Your task to perform on an android device: stop showing notifications on the lock screen Image 0: 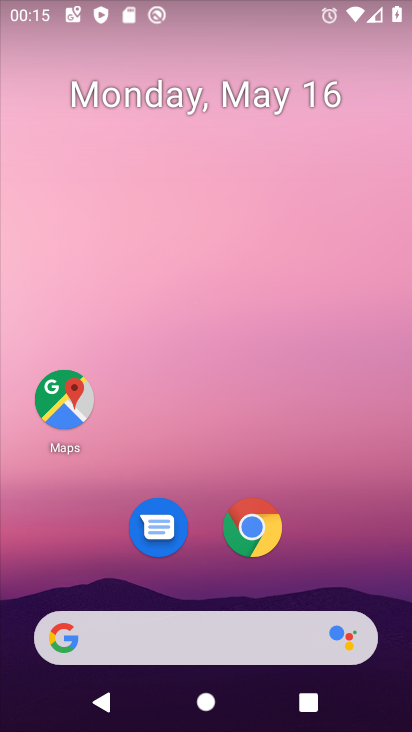
Step 0: drag from (370, 556) to (289, 118)
Your task to perform on an android device: stop showing notifications on the lock screen Image 1: 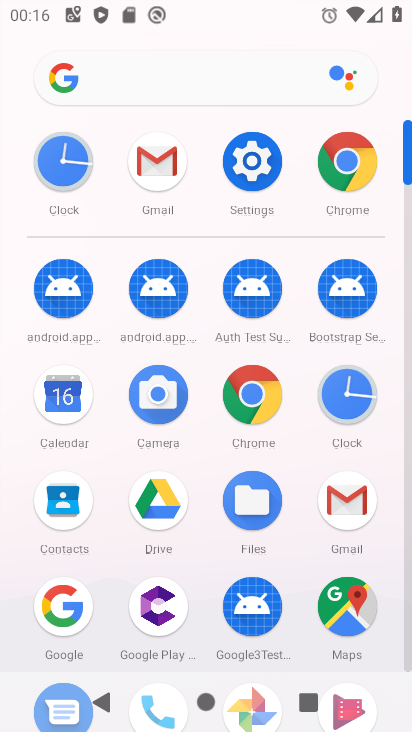
Step 1: click (237, 169)
Your task to perform on an android device: stop showing notifications on the lock screen Image 2: 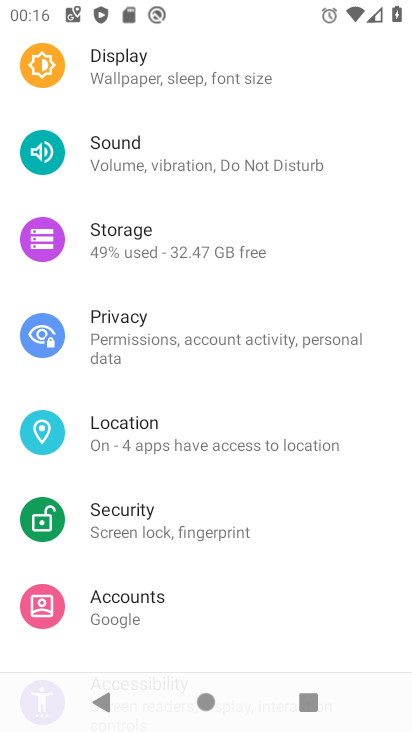
Step 2: drag from (201, 379) to (197, 553)
Your task to perform on an android device: stop showing notifications on the lock screen Image 3: 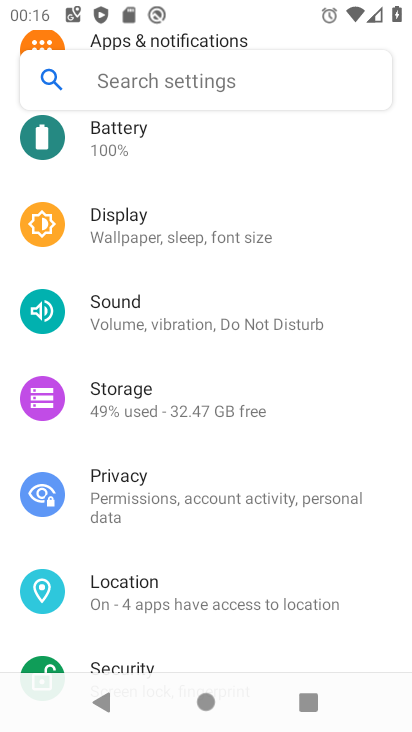
Step 3: drag from (202, 183) to (212, 375)
Your task to perform on an android device: stop showing notifications on the lock screen Image 4: 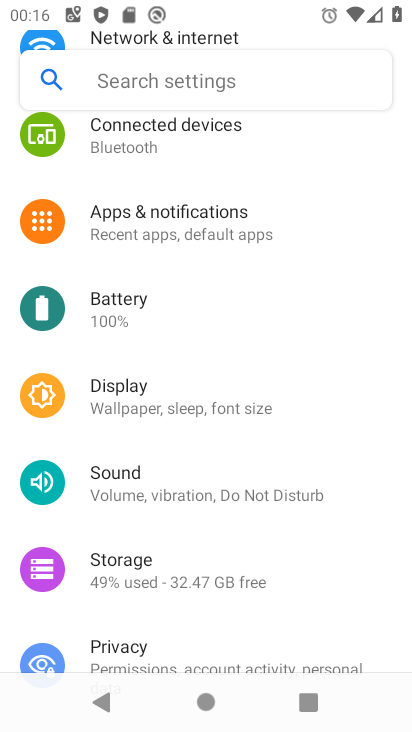
Step 4: click (200, 256)
Your task to perform on an android device: stop showing notifications on the lock screen Image 5: 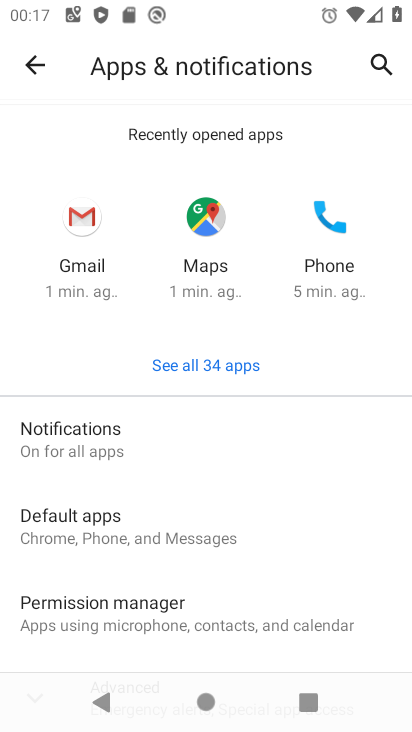
Step 5: drag from (199, 586) to (209, 411)
Your task to perform on an android device: stop showing notifications on the lock screen Image 6: 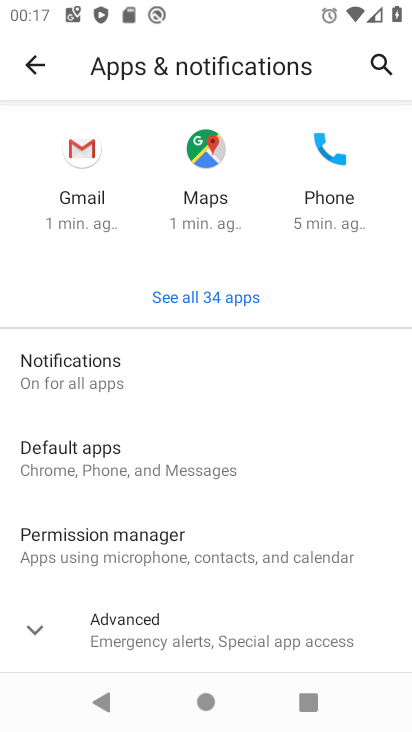
Step 6: click (215, 365)
Your task to perform on an android device: stop showing notifications on the lock screen Image 7: 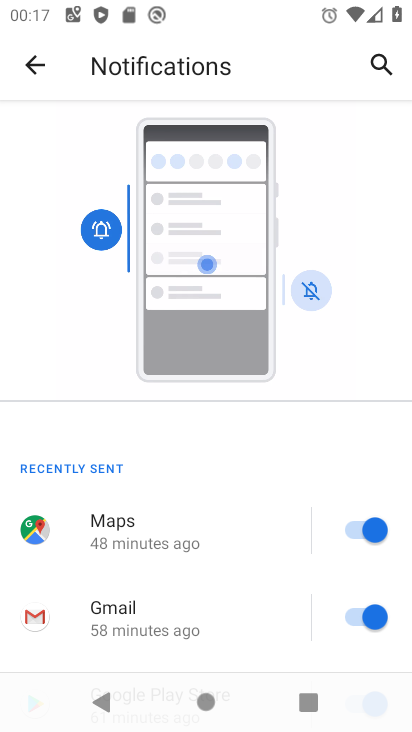
Step 7: drag from (216, 640) to (242, 363)
Your task to perform on an android device: stop showing notifications on the lock screen Image 8: 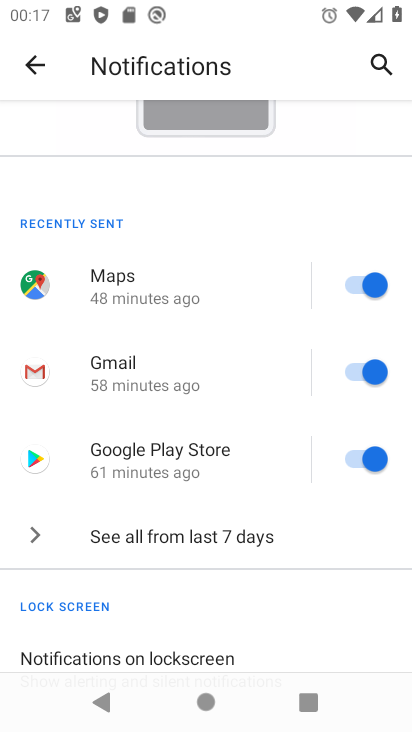
Step 8: drag from (210, 601) to (242, 280)
Your task to perform on an android device: stop showing notifications on the lock screen Image 9: 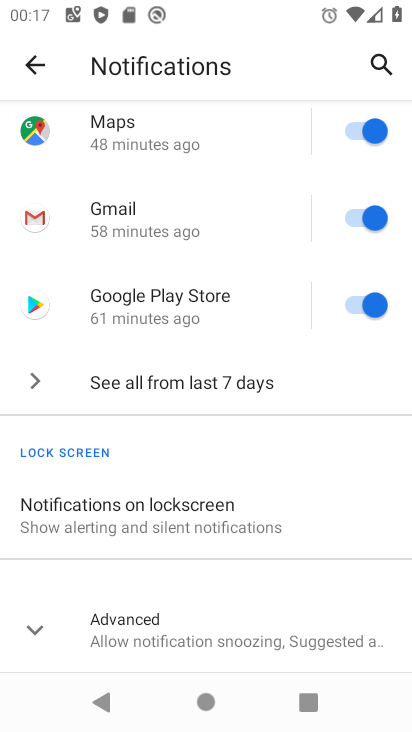
Step 9: click (103, 508)
Your task to perform on an android device: stop showing notifications on the lock screen Image 10: 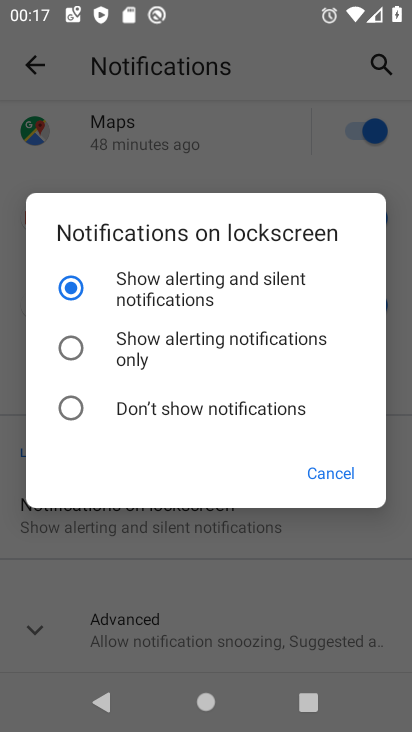
Step 10: click (183, 398)
Your task to perform on an android device: stop showing notifications on the lock screen Image 11: 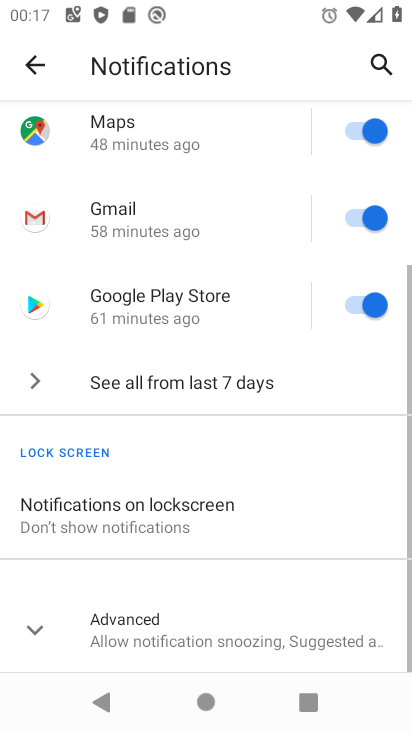
Step 11: task complete